Your task to perform on an android device: Show me productivity apps on the Play Store Image 0: 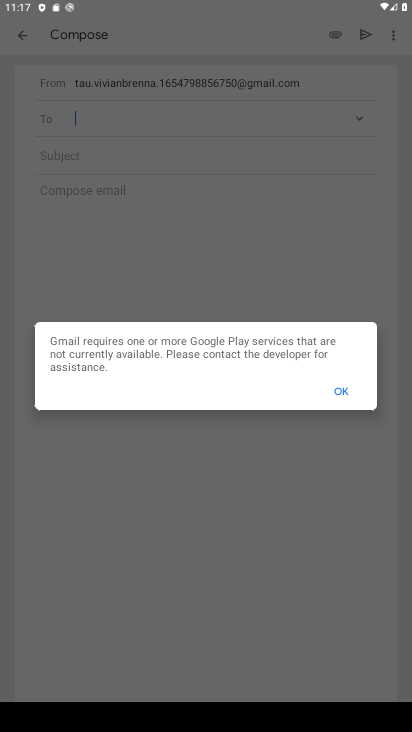
Step 0: click (343, 395)
Your task to perform on an android device: Show me productivity apps on the Play Store Image 1: 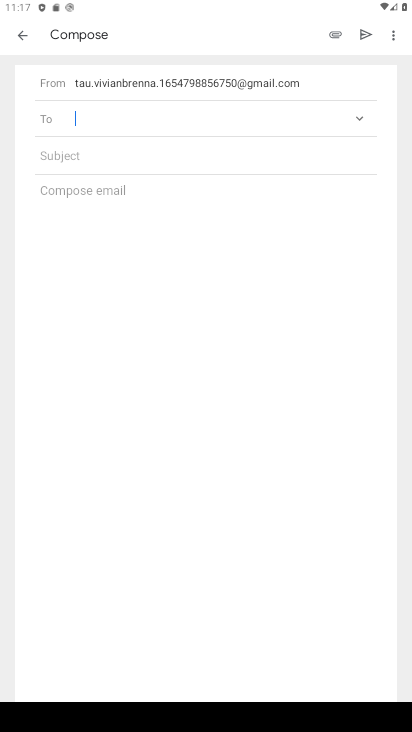
Step 1: press home button
Your task to perform on an android device: Show me productivity apps on the Play Store Image 2: 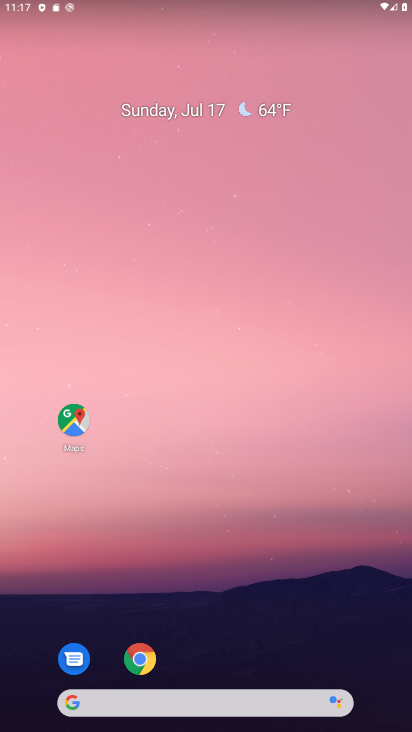
Step 2: drag from (268, 500) to (223, 189)
Your task to perform on an android device: Show me productivity apps on the Play Store Image 3: 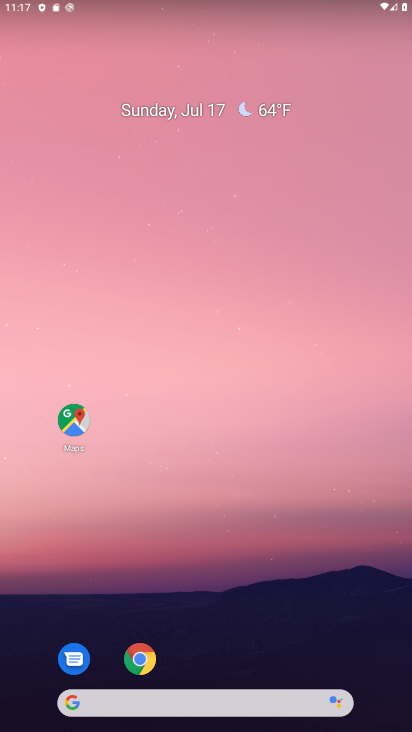
Step 3: drag from (249, 595) to (213, 120)
Your task to perform on an android device: Show me productivity apps on the Play Store Image 4: 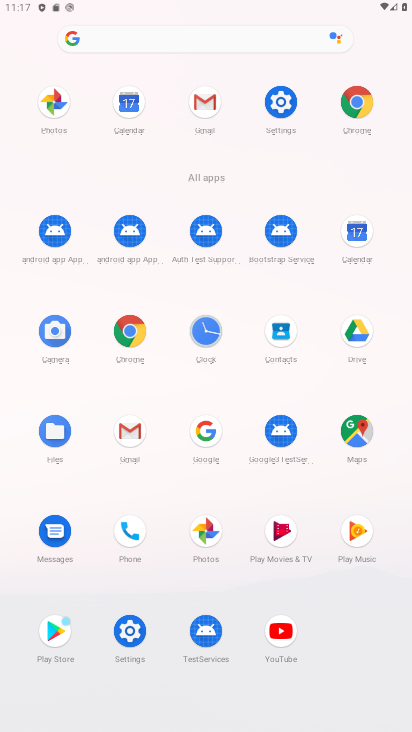
Step 4: click (54, 633)
Your task to perform on an android device: Show me productivity apps on the Play Store Image 5: 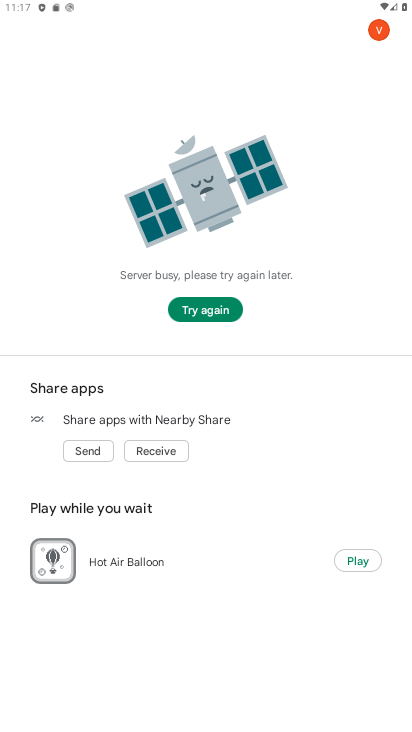
Step 5: click (189, 312)
Your task to perform on an android device: Show me productivity apps on the Play Store Image 6: 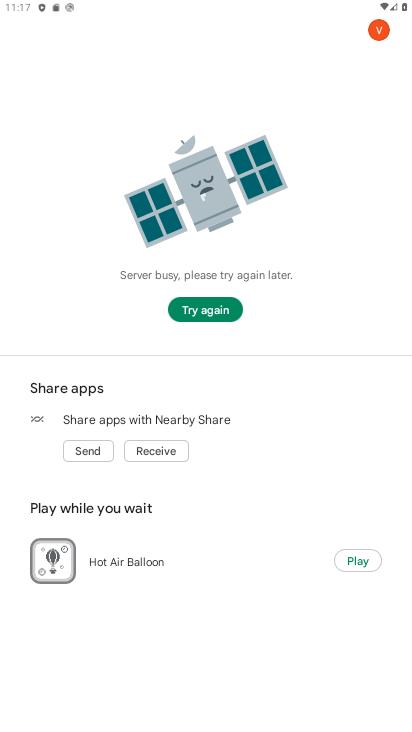
Step 6: task complete